Your task to perform on an android device: turn on bluetooth scan Image 0: 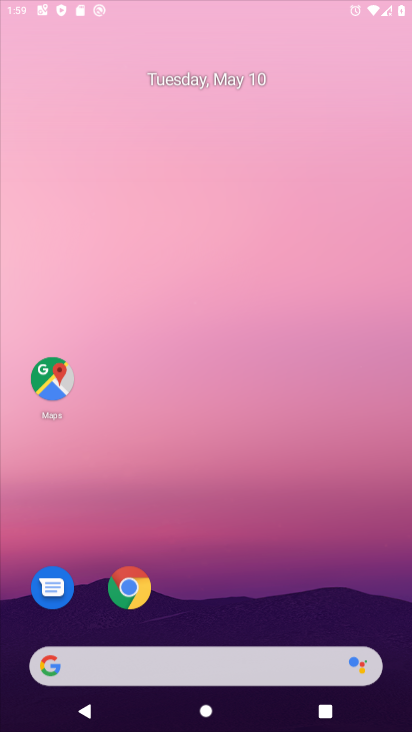
Step 0: click (294, 239)
Your task to perform on an android device: turn on bluetooth scan Image 1: 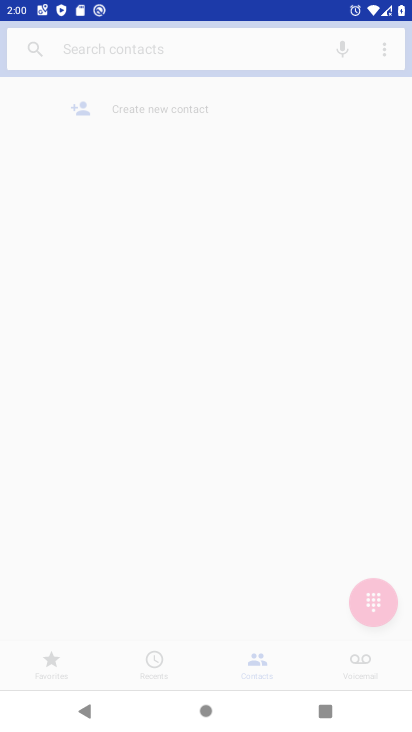
Step 1: drag from (263, 634) to (297, 272)
Your task to perform on an android device: turn on bluetooth scan Image 2: 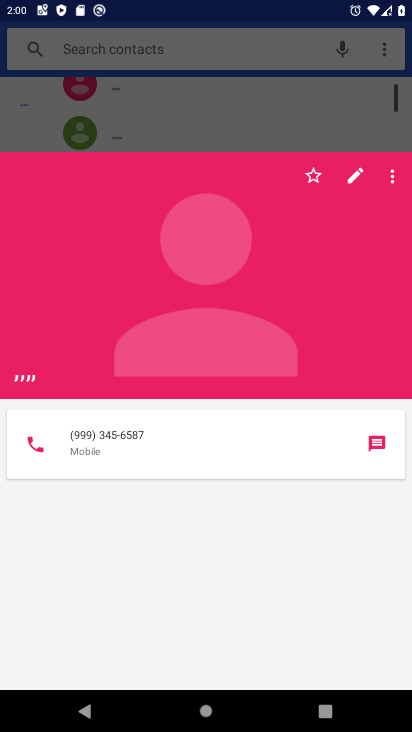
Step 2: press home button
Your task to perform on an android device: turn on bluetooth scan Image 3: 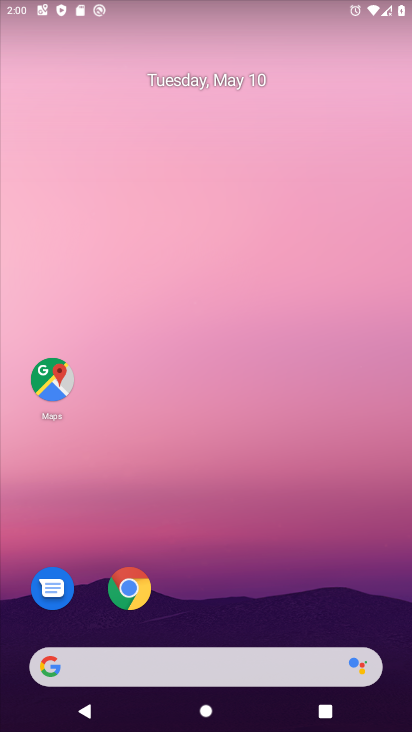
Step 3: drag from (299, 508) to (302, 202)
Your task to perform on an android device: turn on bluetooth scan Image 4: 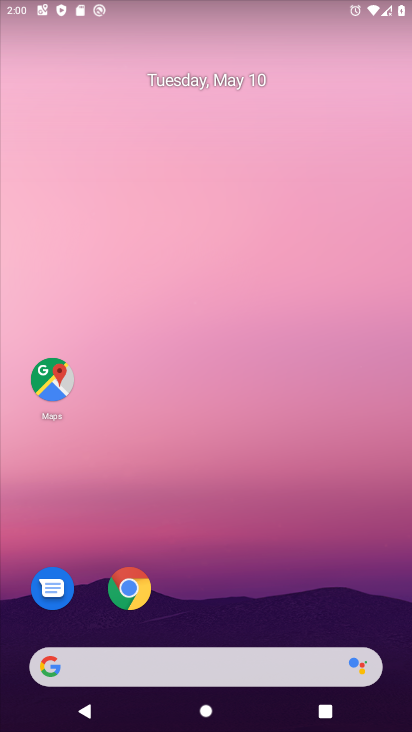
Step 4: drag from (212, 618) to (290, 286)
Your task to perform on an android device: turn on bluetooth scan Image 5: 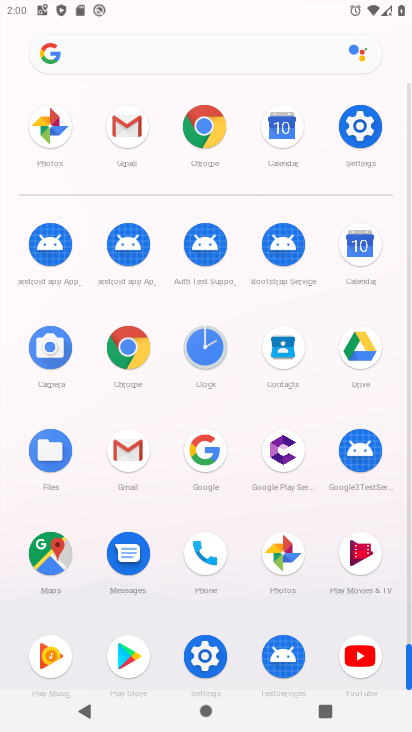
Step 5: click (370, 125)
Your task to perform on an android device: turn on bluetooth scan Image 6: 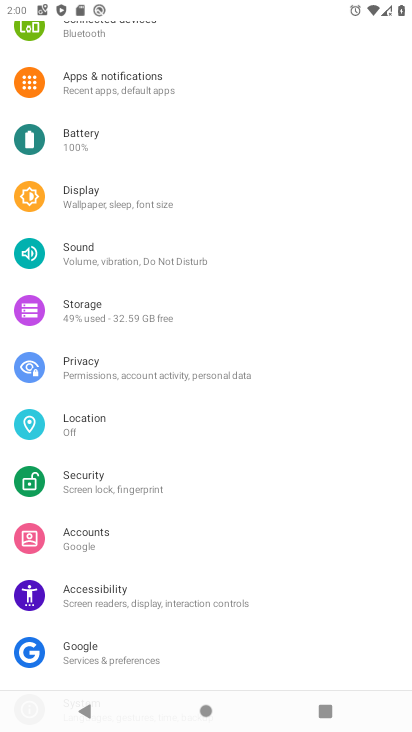
Step 6: drag from (293, 121) to (235, 517)
Your task to perform on an android device: turn on bluetooth scan Image 7: 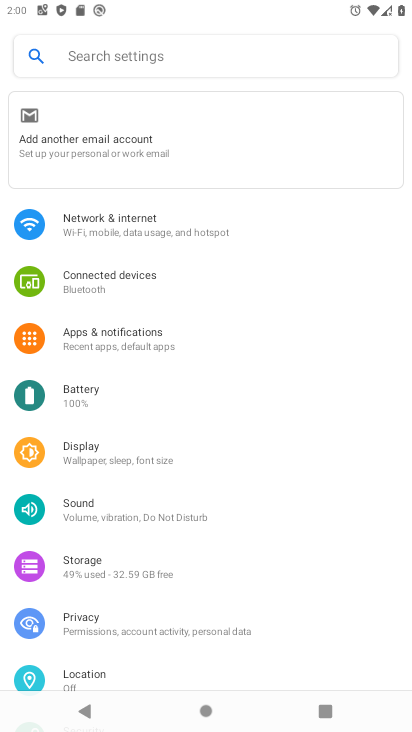
Step 7: click (226, 49)
Your task to perform on an android device: turn on bluetooth scan Image 8: 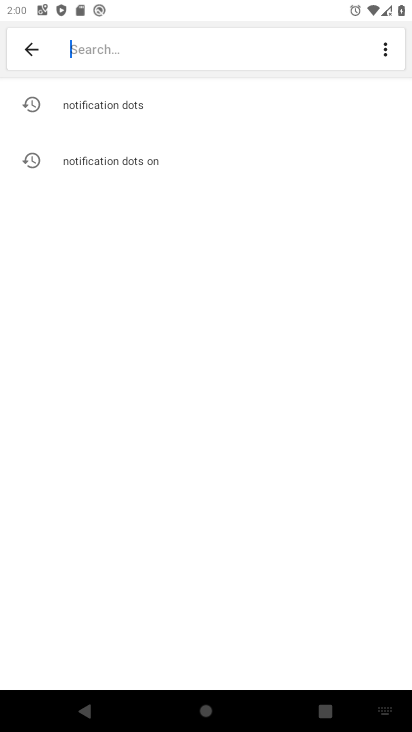
Step 8: type "bluetooth scan"
Your task to perform on an android device: turn on bluetooth scan Image 9: 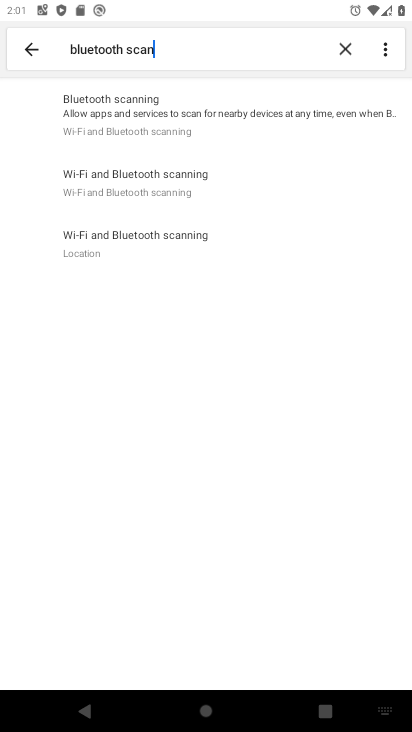
Step 9: click (232, 102)
Your task to perform on an android device: turn on bluetooth scan Image 10: 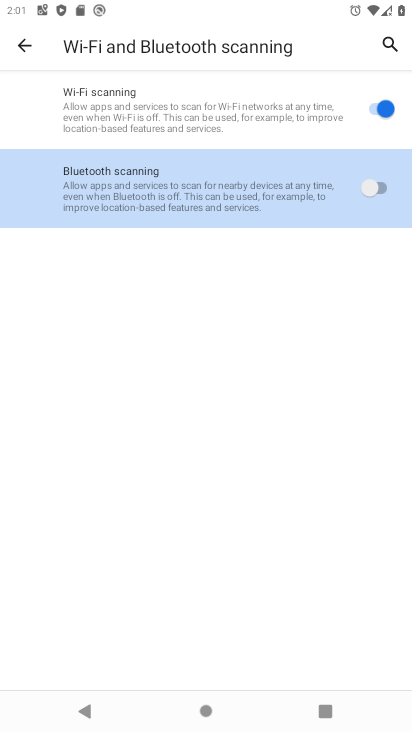
Step 10: click (372, 183)
Your task to perform on an android device: turn on bluetooth scan Image 11: 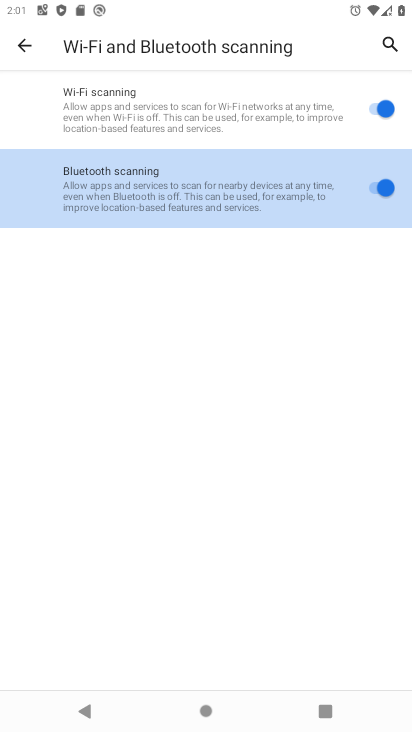
Step 11: task complete